Your task to perform on an android device: Check the news Image 0: 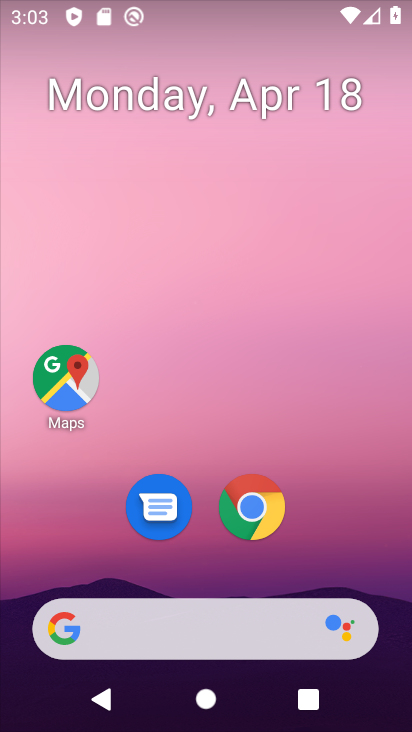
Step 0: click (255, 627)
Your task to perform on an android device: Check the news Image 1: 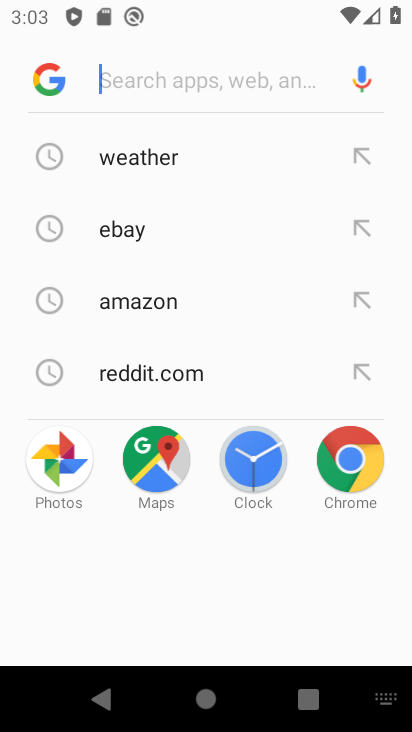
Step 1: type "news"
Your task to perform on an android device: Check the news Image 2: 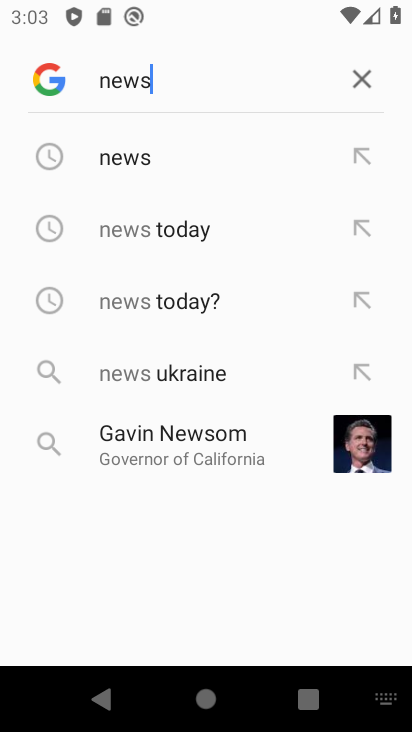
Step 2: click (174, 231)
Your task to perform on an android device: Check the news Image 3: 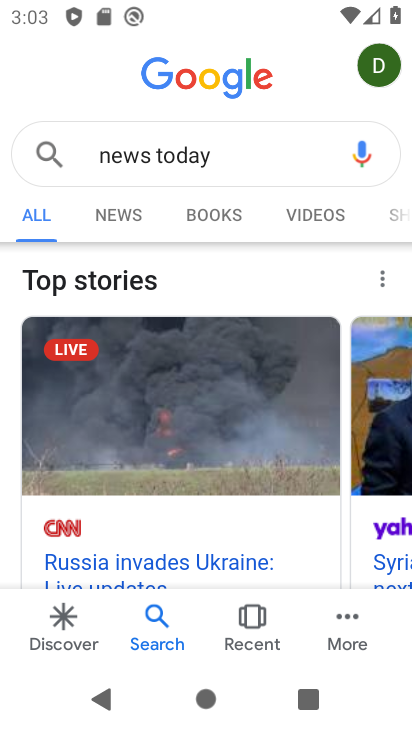
Step 3: task complete